Your task to perform on an android device: Open internet settings Image 0: 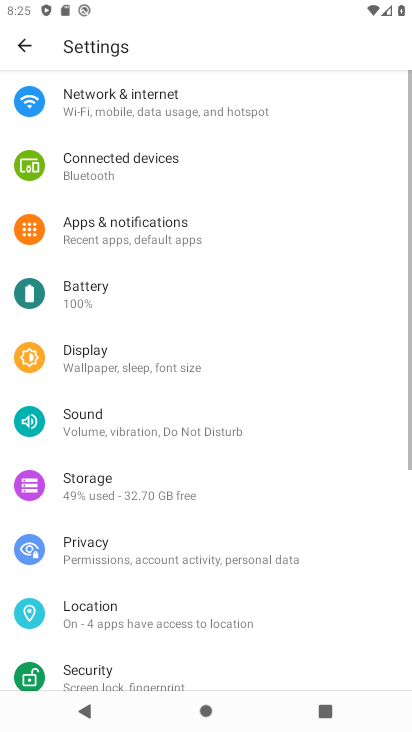
Step 0: click (239, 100)
Your task to perform on an android device: Open internet settings Image 1: 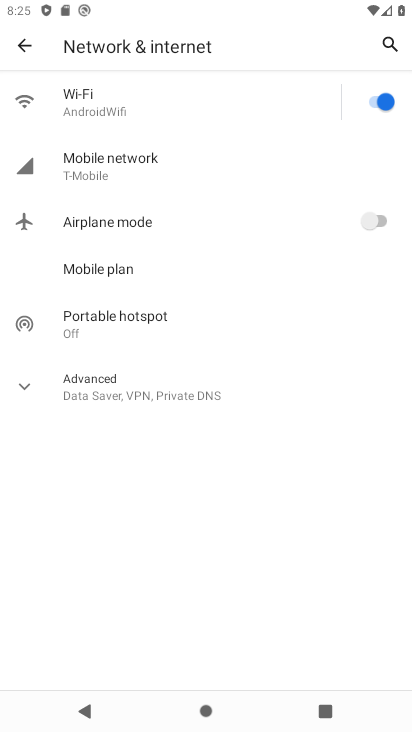
Step 1: click (174, 170)
Your task to perform on an android device: Open internet settings Image 2: 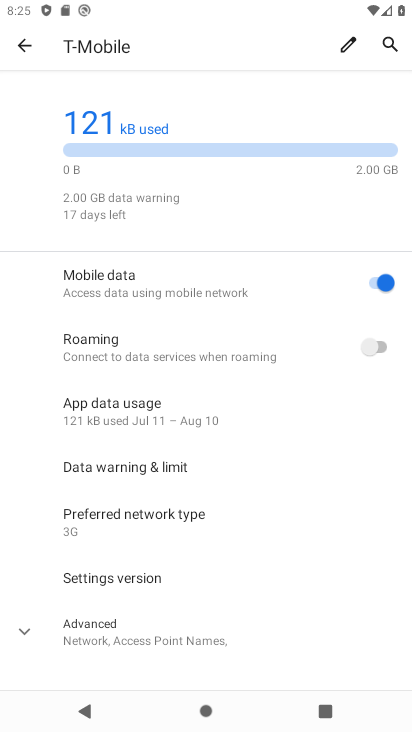
Step 2: task complete